Your task to perform on an android device: Open notification settings Image 0: 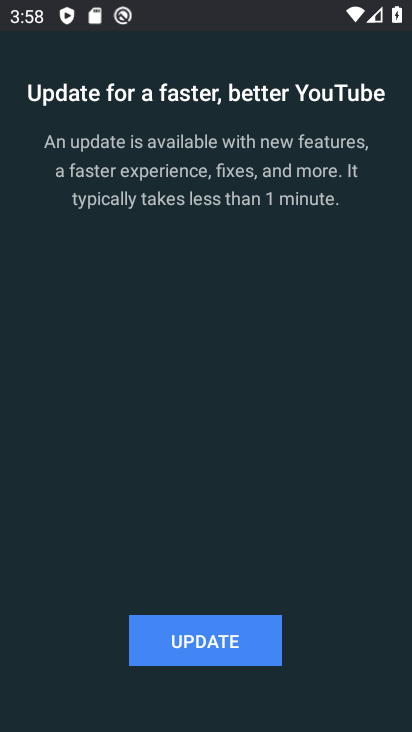
Step 0: press home button
Your task to perform on an android device: Open notification settings Image 1: 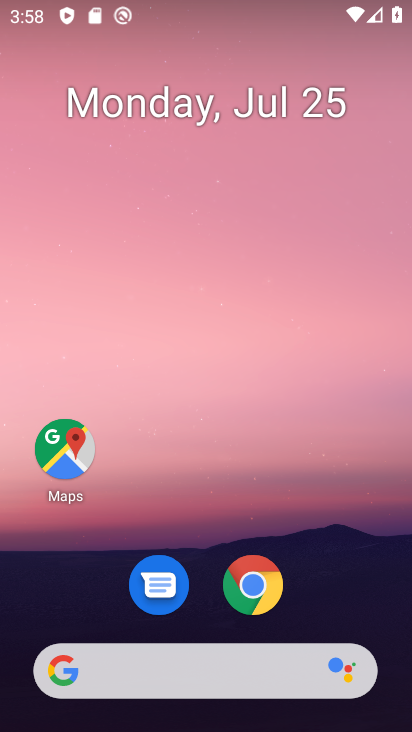
Step 1: drag from (338, 612) to (338, 62)
Your task to perform on an android device: Open notification settings Image 2: 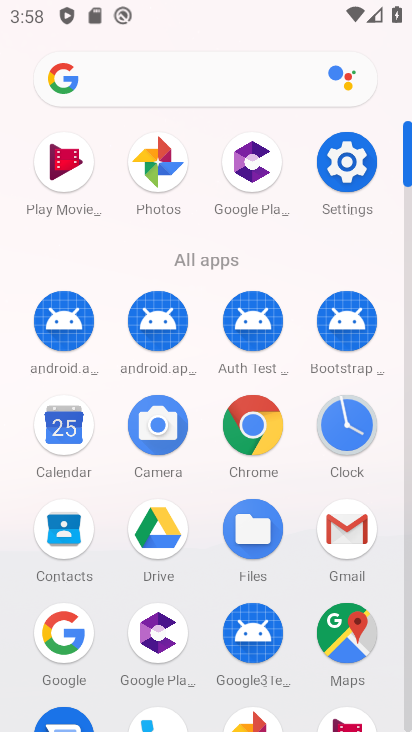
Step 2: click (351, 163)
Your task to perform on an android device: Open notification settings Image 3: 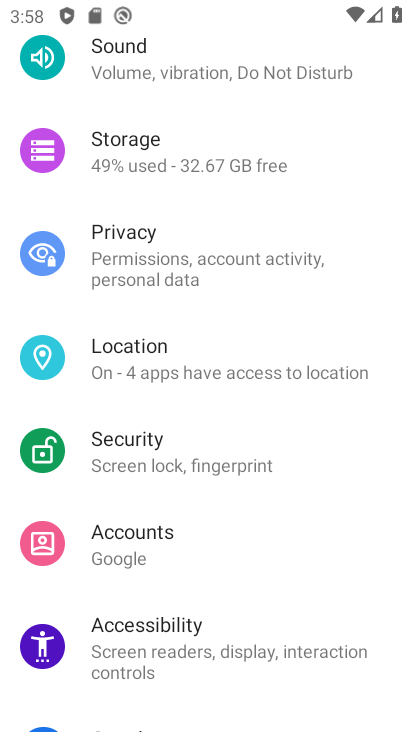
Step 3: drag from (225, 220) to (217, 638)
Your task to perform on an android device: Open notification settings Image 4: 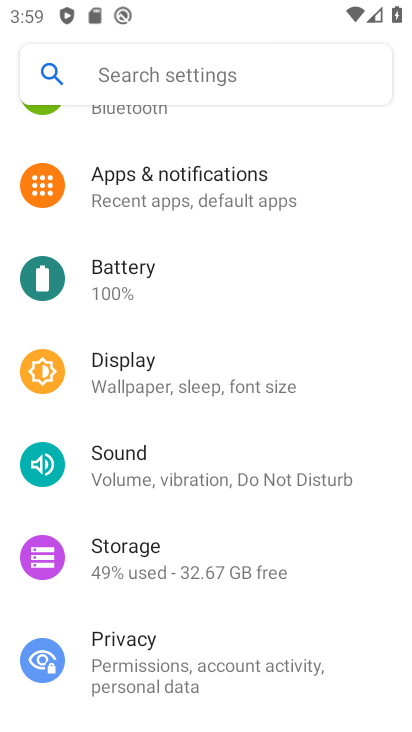
Step 4: click (218, 185)
Your task to perform on an android device: Open notification settings Image 5: 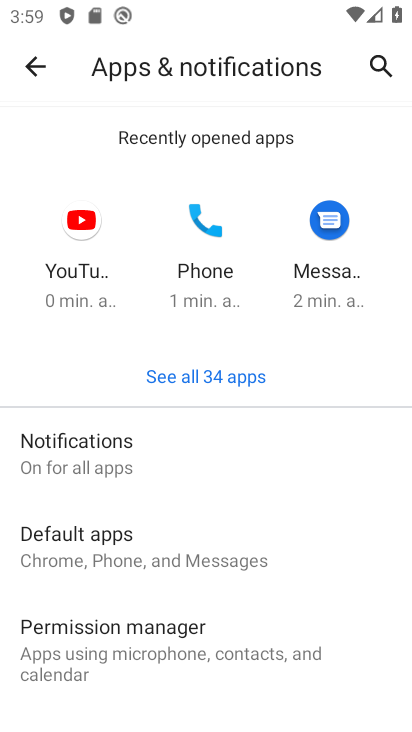
Step 5: click (96, 444)
Your task to perform on an android device: Open notification settings Image 6: 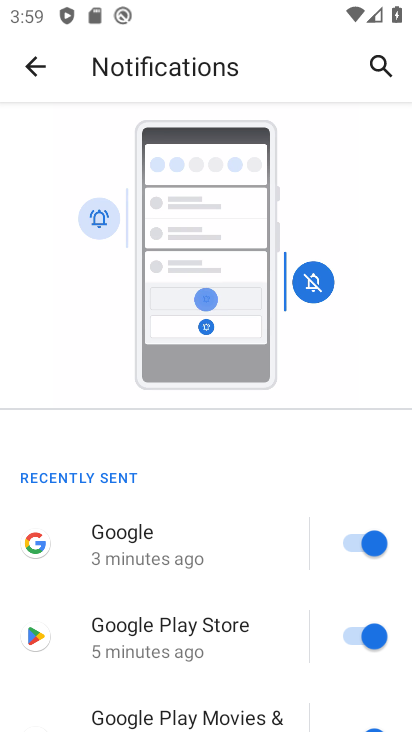
Step 6: task complete